Your task to perform on an android device: Open accessibility settings Image 0: 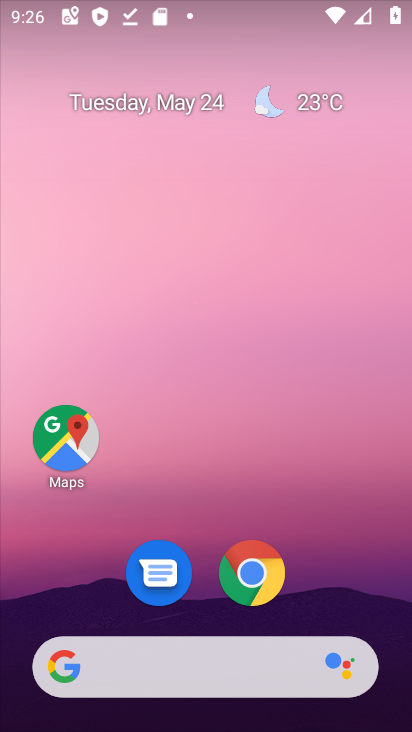
Step 0: drag from (296, 713) to (170, 78)
Your task to perform on an android device: Open accessibility settings Image 1: 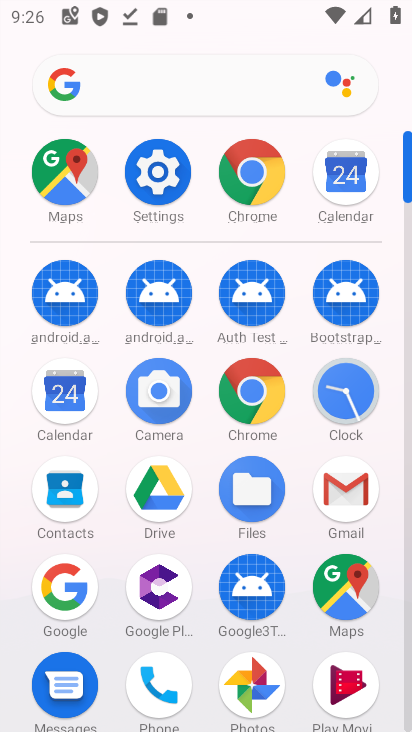
Step 1: click (155, 173)
Your task to perform on an android device: Open accessibility settings Image 2: 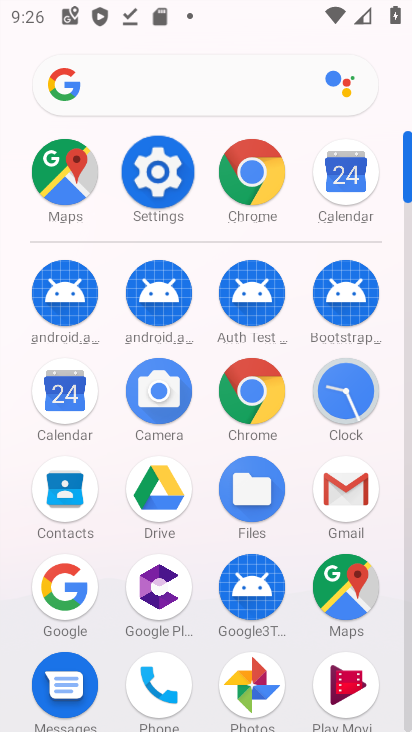
Step 2: click (155, 173)
Your task to perform on an android device: Open accessibility settings Image 3: 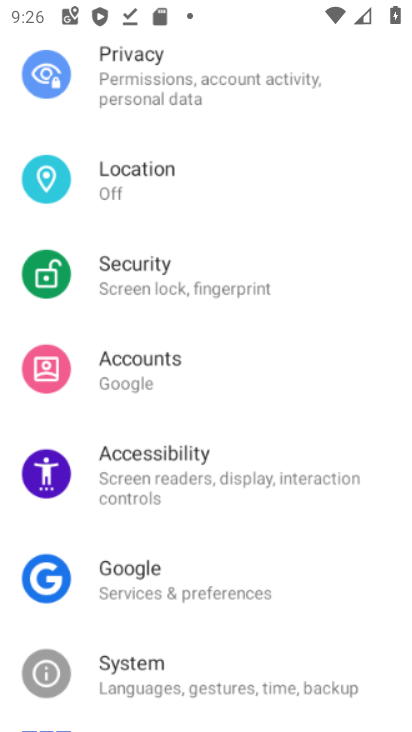
Step 3: click (166, 175)
Your task to perform on an android device: Open accessibility settings Image 4: 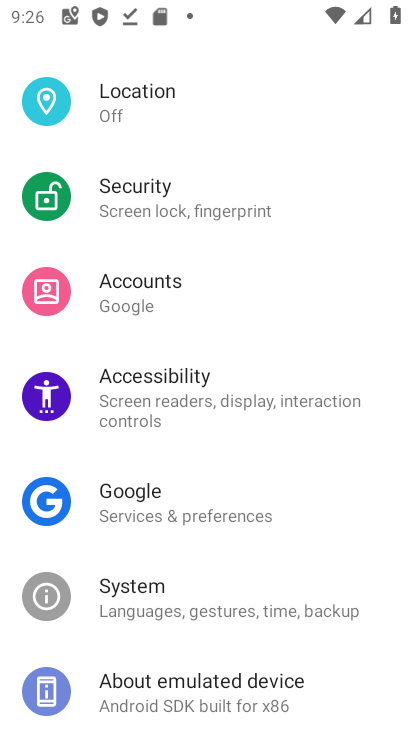
Step 4: click (166, 175)
Your task to perform on an android device: Open accessibility settings Image 5: 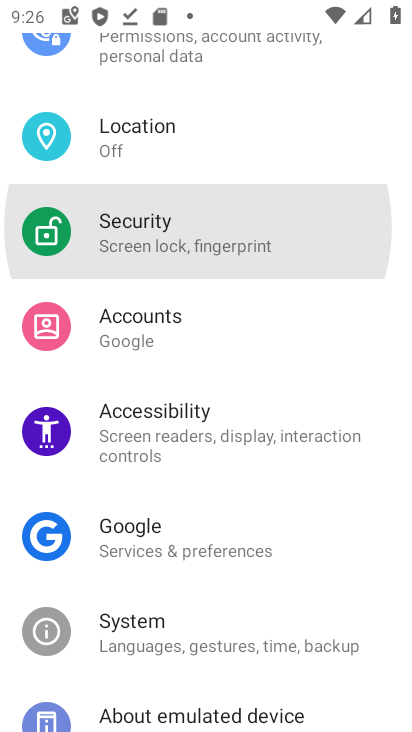
Step 5: click (166, 175)
Your task to perform on an android device: Open accessibility settings Image 6: 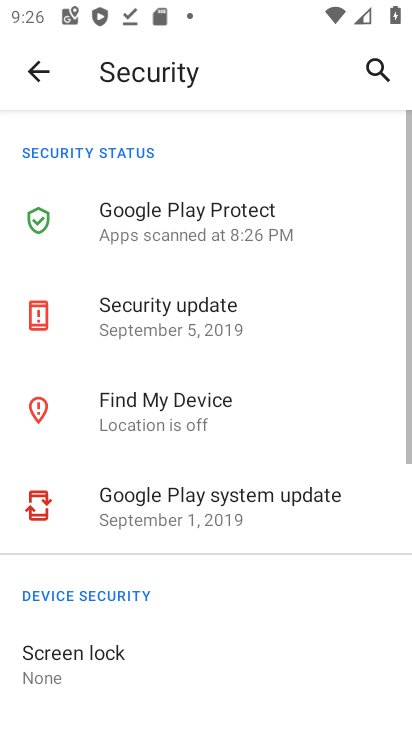
Step 6: click (41, 71)
Your task to perform on an android device: Open accessibility settings Image 7: 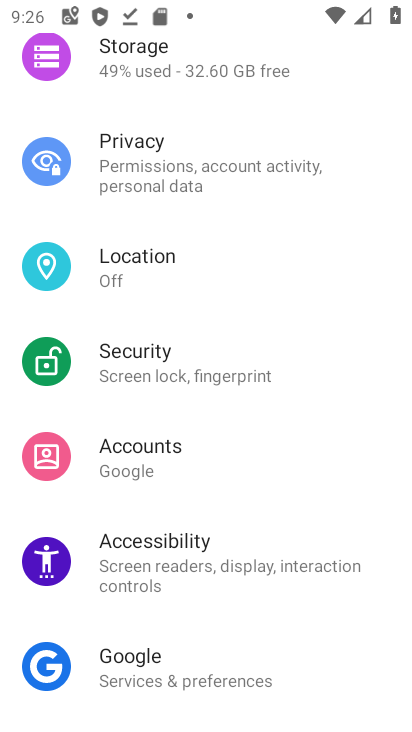
Step 7: click (153, 556)
Your task to perform on an android device: Open accessibility settings Image 8: 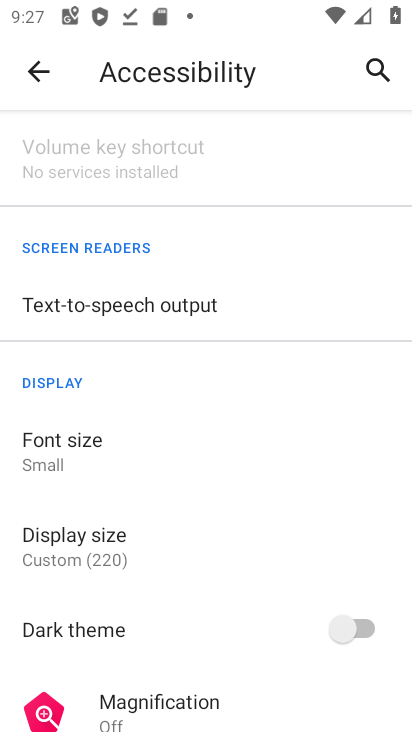
Step 8: click (42, 67)
Your task to perform on an android device: Open accessibility settings Image 9: 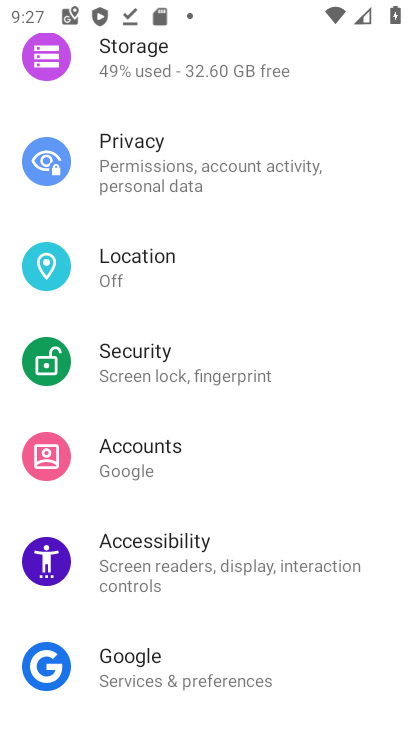
Step 9: task complete